Your task to perform on an android device: turn on sleep mode Image 0: 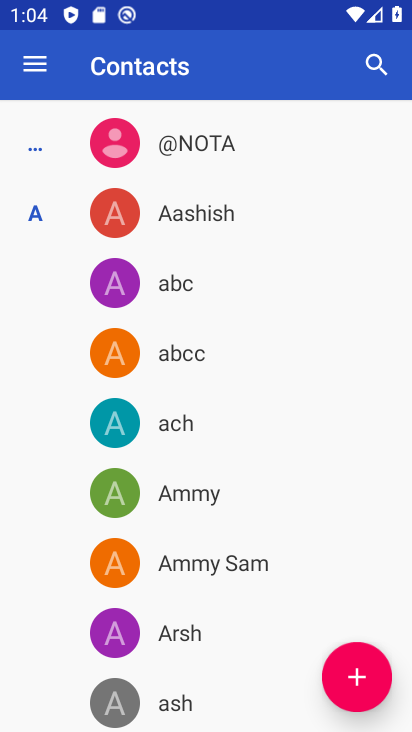
Step 0: press home button
Your task to perform on an android device: turn on sleep mode Image 1: 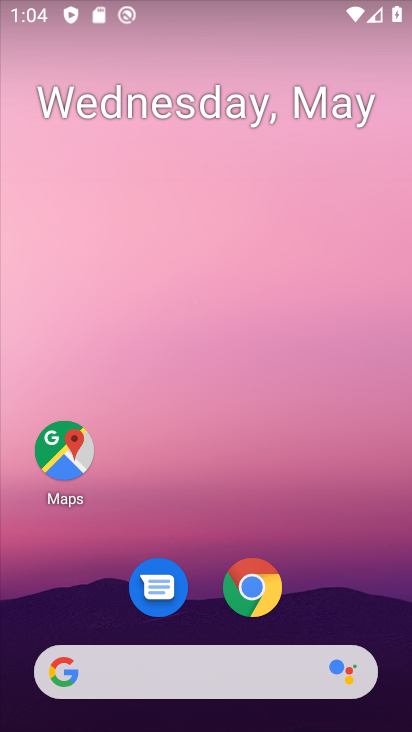
Step 1: task complete